Your task to perform on an android device: Open calendar and show me the fourth week of next month Image 0: 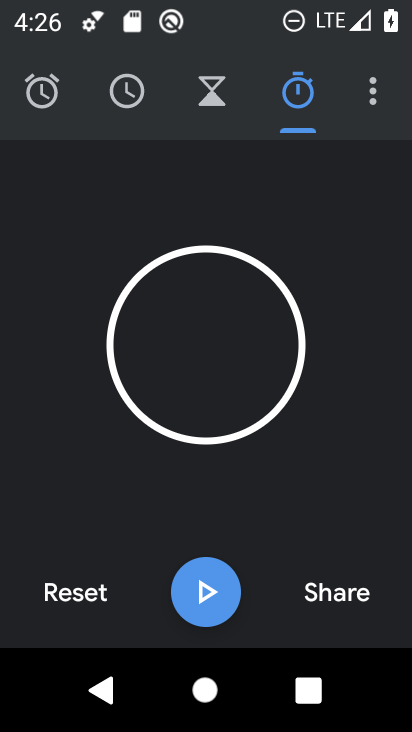
Step 0: press home button
Your task to perform on an android device: Open calendar and show me the fourth week of next month Image 1: 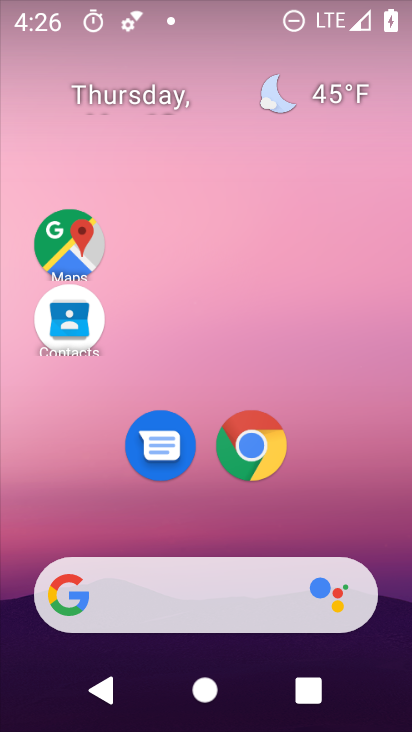
Step 1: drag from (312, 532) to (285, 103)
Your task to perform on an android device: Open calendar and show me the fourth week of next month Image 2: 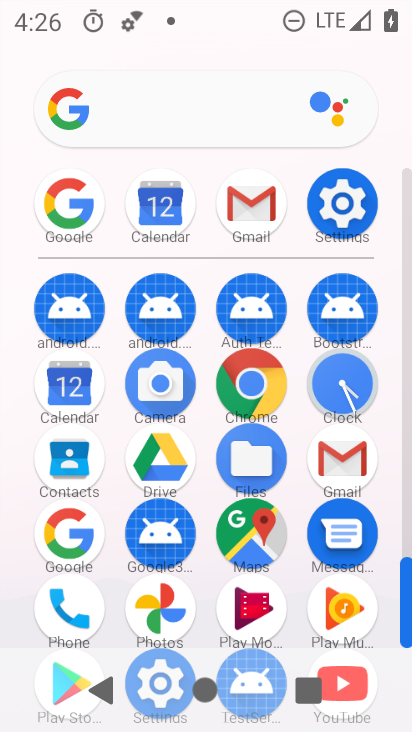
Step 2: click (68, 389)
Your task to perform on an android device: Open calendar and show me the fourth week of next month Image 3: 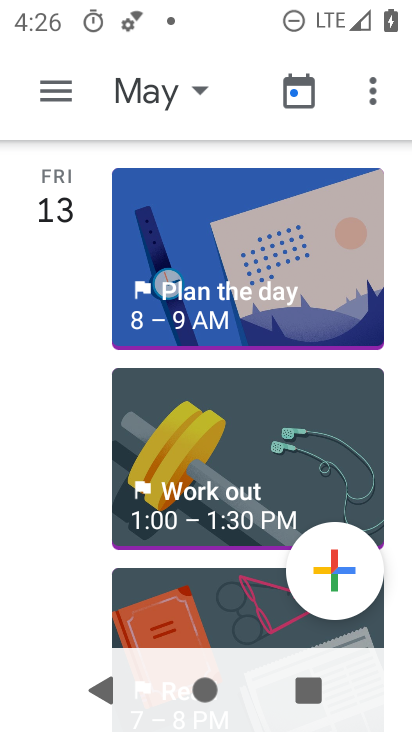
Step 3: click (195, 95)
Your task to perform on an android device: Open calendar and show me the fourth week of next month Image 4: 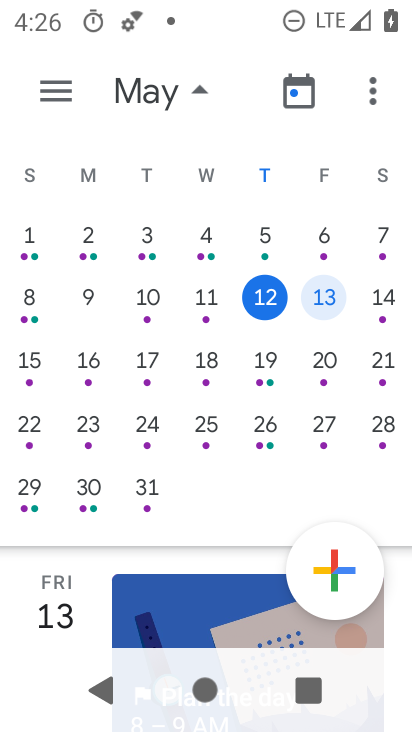
Step 4: click (302, 90)
Your task to perform on an android device: Open calendar and show me the fourth week of next month Image 5: 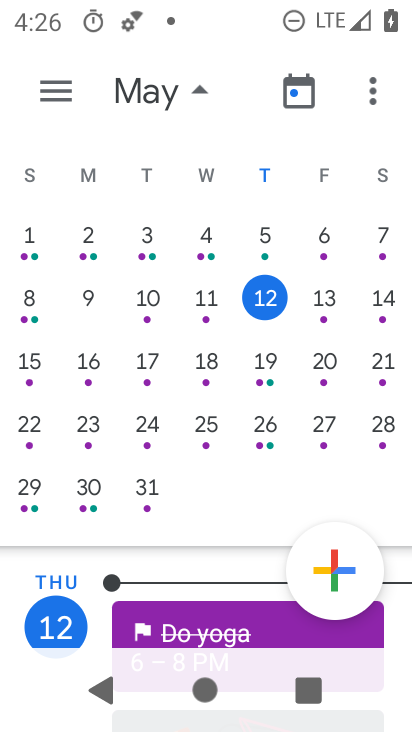
Step 5: drag from (370, 378) to (8, 351)
Your task to perform on an android device: Open calendar and show me the fourth week of next month Image 6: 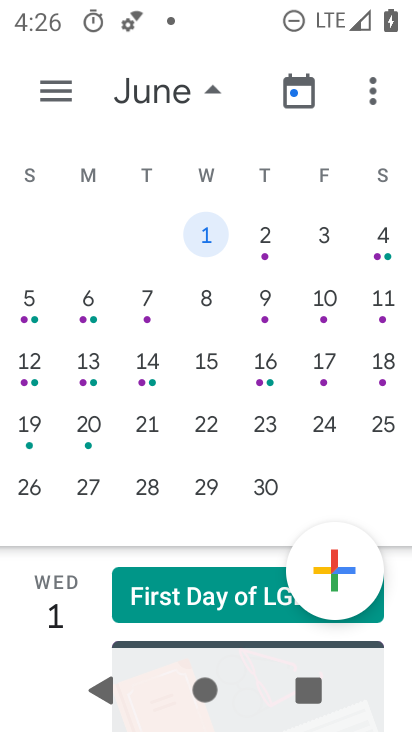
Step 6: click (90, 480)
Your task to perform on an android device: Open calendar and show me the fourth week of next month Image 7: 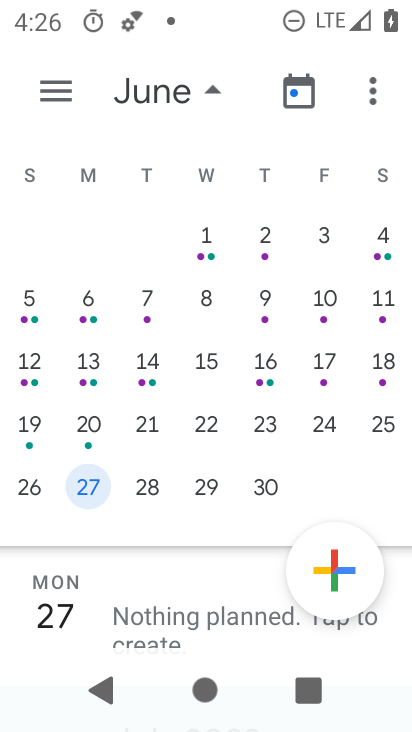
Step 7: click (64, 93)
Your task to perform on an android device: Open calendar and show me the fourth week of next month Image 8: 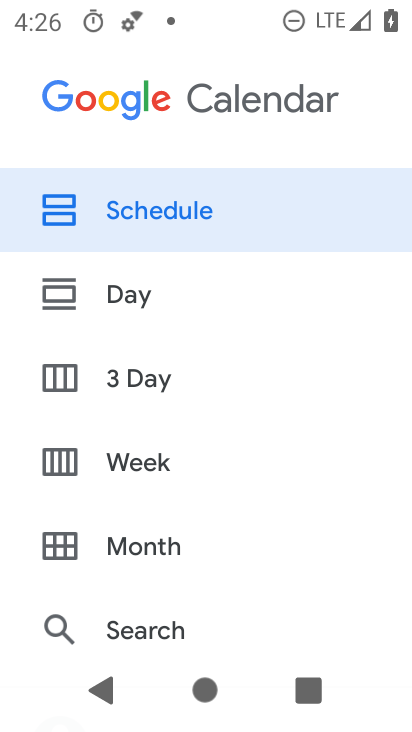
Step 8: click (136, 455)
Your task to perform on an android device: Open calendar and show me the fourth week of next month Image 9: 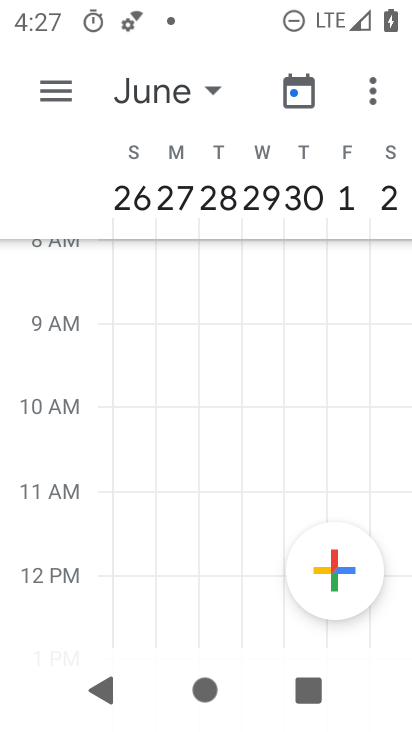
Step 9: task complete